Your task to perform on an android device: check battery use Image 0: 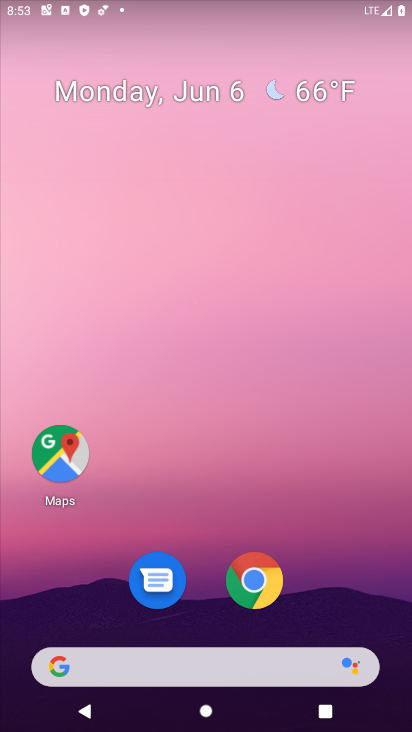
Step 0: drag from (338, 390) to (345, 116)
Your task to perform on an android device: check battery use Image 1: 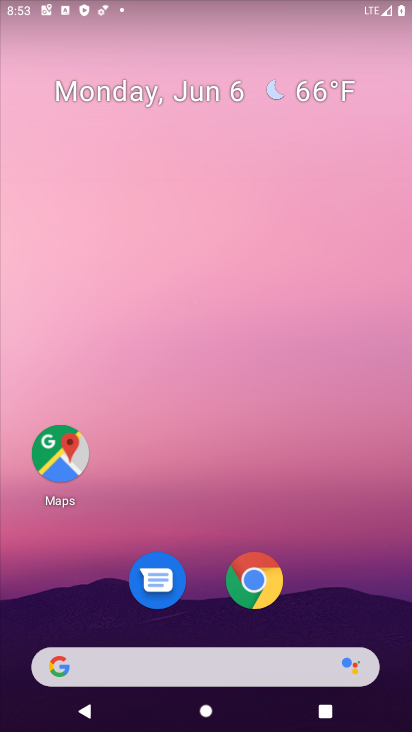
Step 1: drag from (342, 559) to (339, 48)
Your task to perform on an android device: check battery use Image 2: 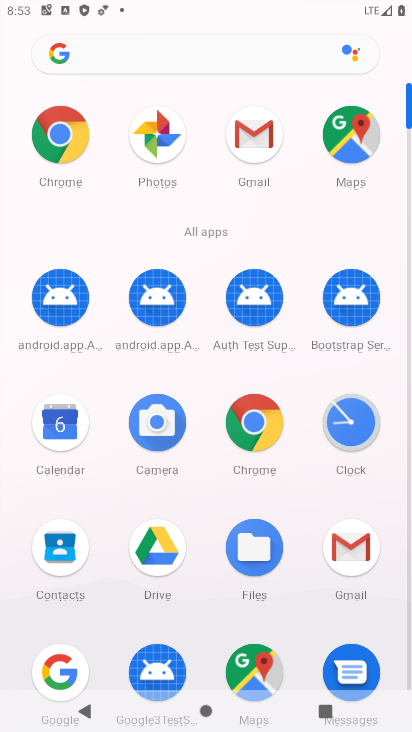
Step 2: drag from (386, 568) to (371, 146)
Your task to perform on an android device: check battery use Image 3: 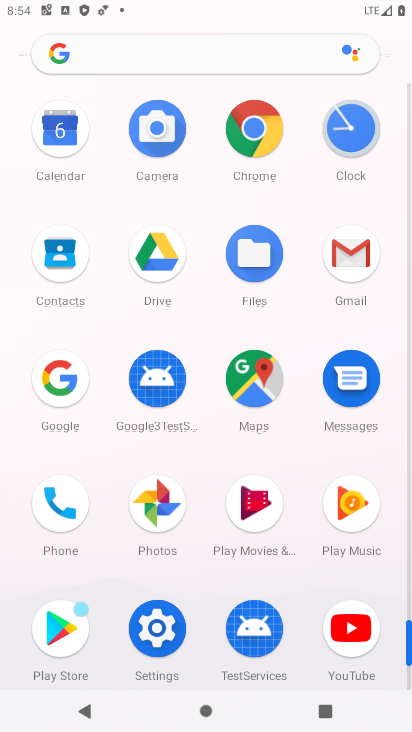
Step 3: click (156, 640)
Your task to perform on an android device: check battery use Image 4: 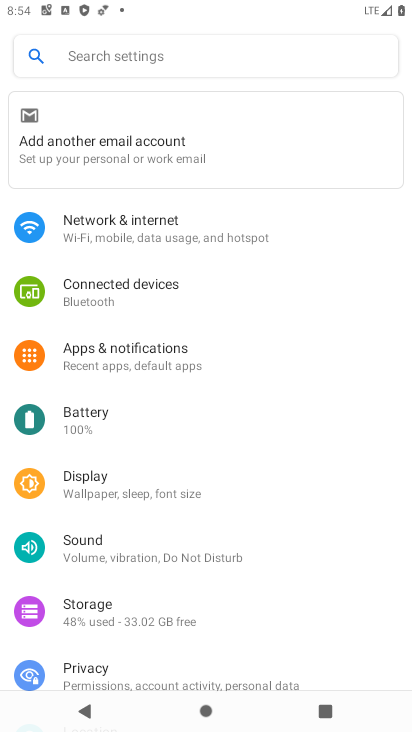
Step 4: click (98, 419)
Your task to perform on an android device: check battery use Image 5: 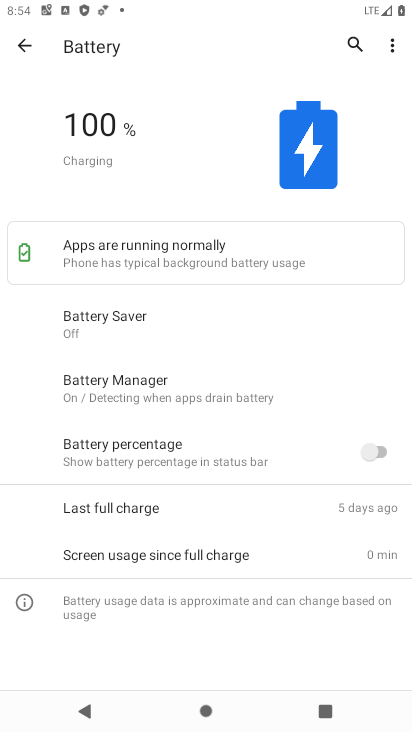
Step 5: task complete